Your task to perform on an android device: set the stopwatch Image 0: 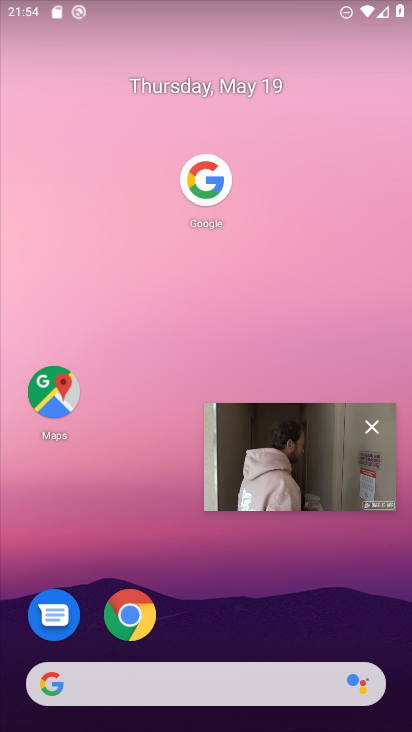
Step 0: click (368, 428)
Your task to perform on an android device: set the stopwatch Image 1: 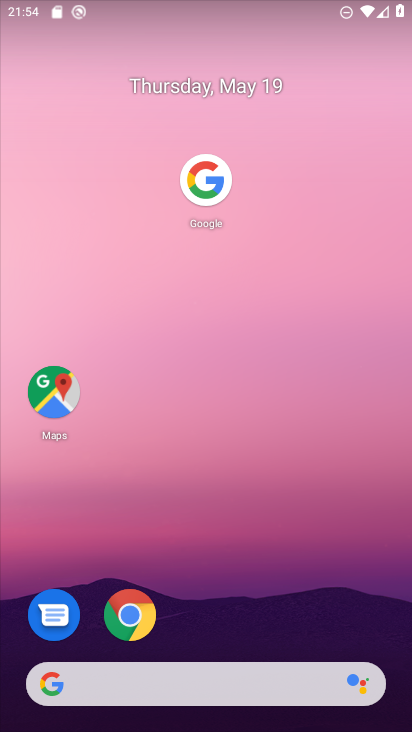
Step 1: drag from (225, 571) to (255, 31)
Your task to perform on an android device: set the stopwatch Image 2: 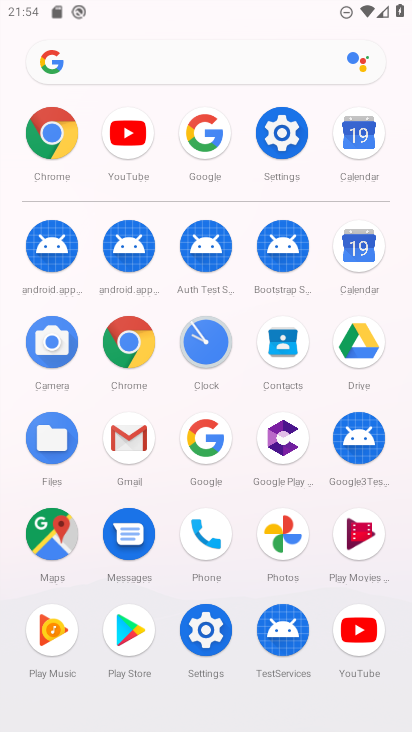
Step 2: click (204, 343)
Your task to perform on an android device: set the stopwatch Image 3: 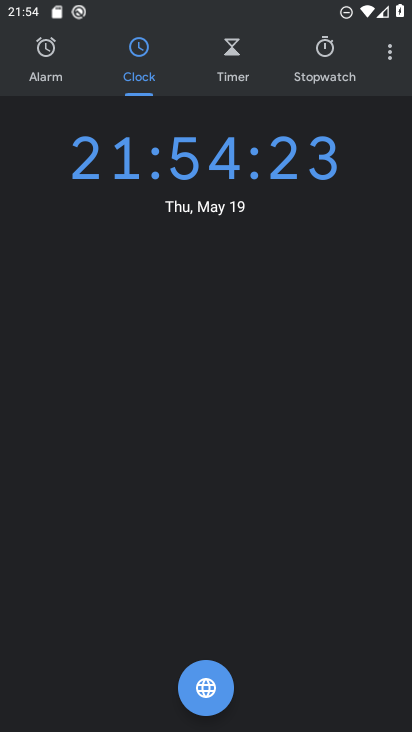
Step 3: click (325, 66)
Your task to perform on an android device: set the stopwatch Image 4: 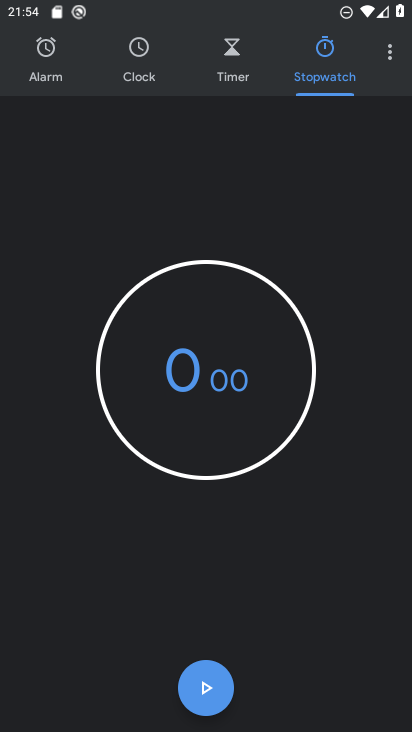
Step 4: click (205, 697)
Your task to perform on an android device: set the stopwatch Image 5: 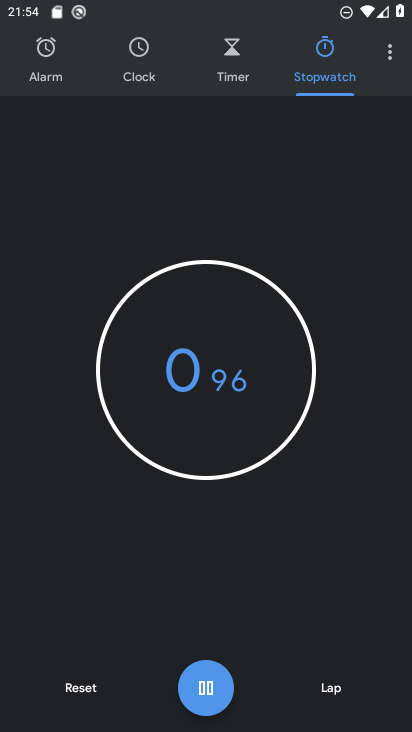
Step 5: click (205, 697)
Your task to perform on an android device: set the stopwatch Image 6: 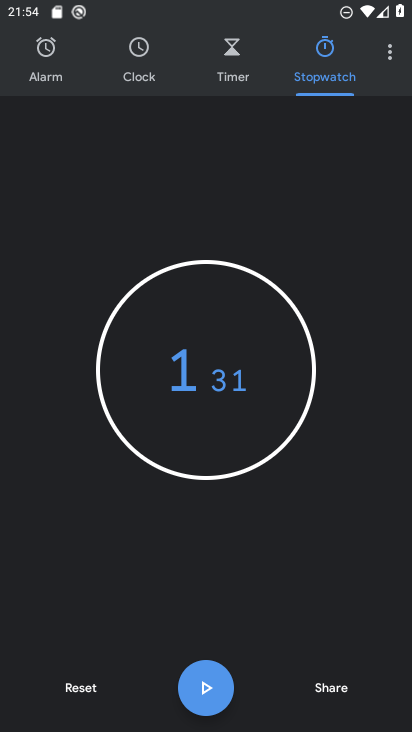
Step 6: task complete